Your task to perform on an android device: turn off priority inbox in the gmail app Image 0: 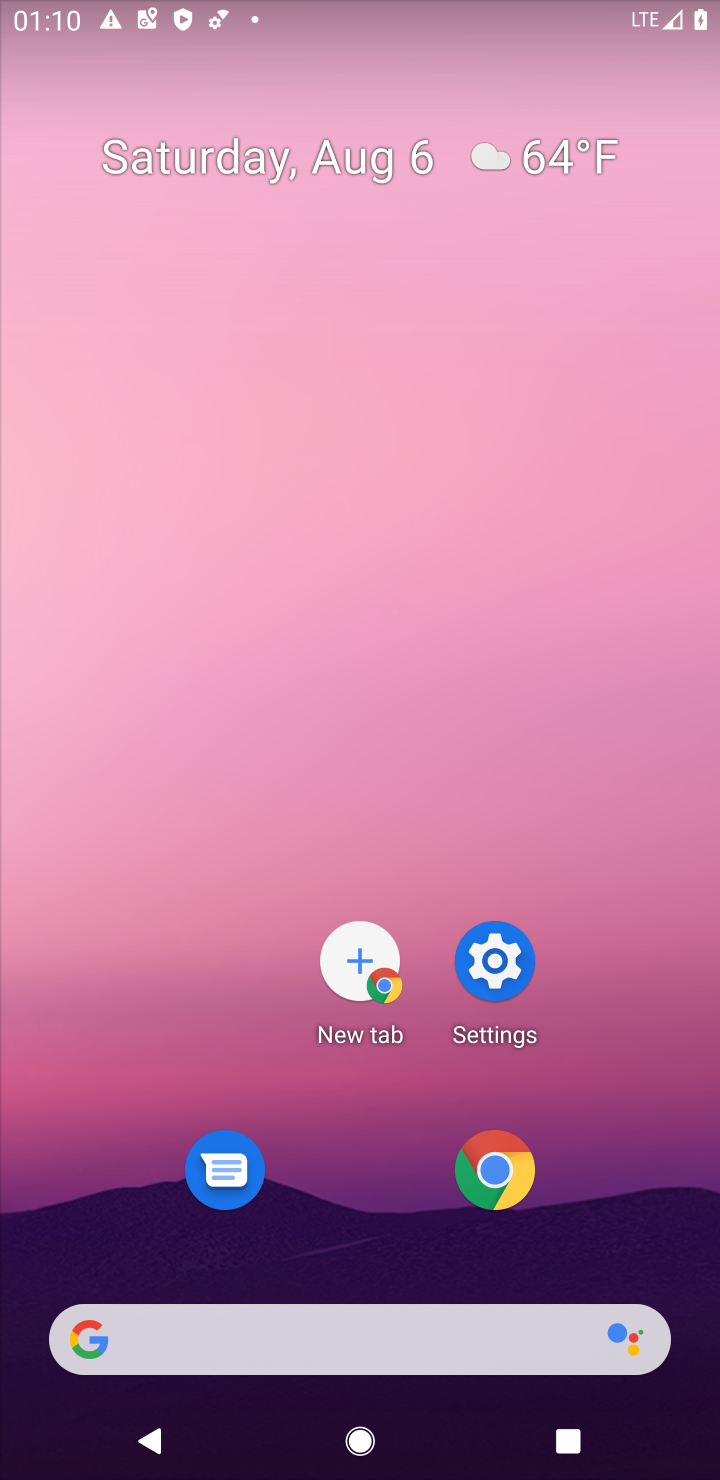
Step 0: drag from (320, 1155) to (455, 338)
Your task to perform on an android device: turn off priority inbox in the gmail app Image 1: 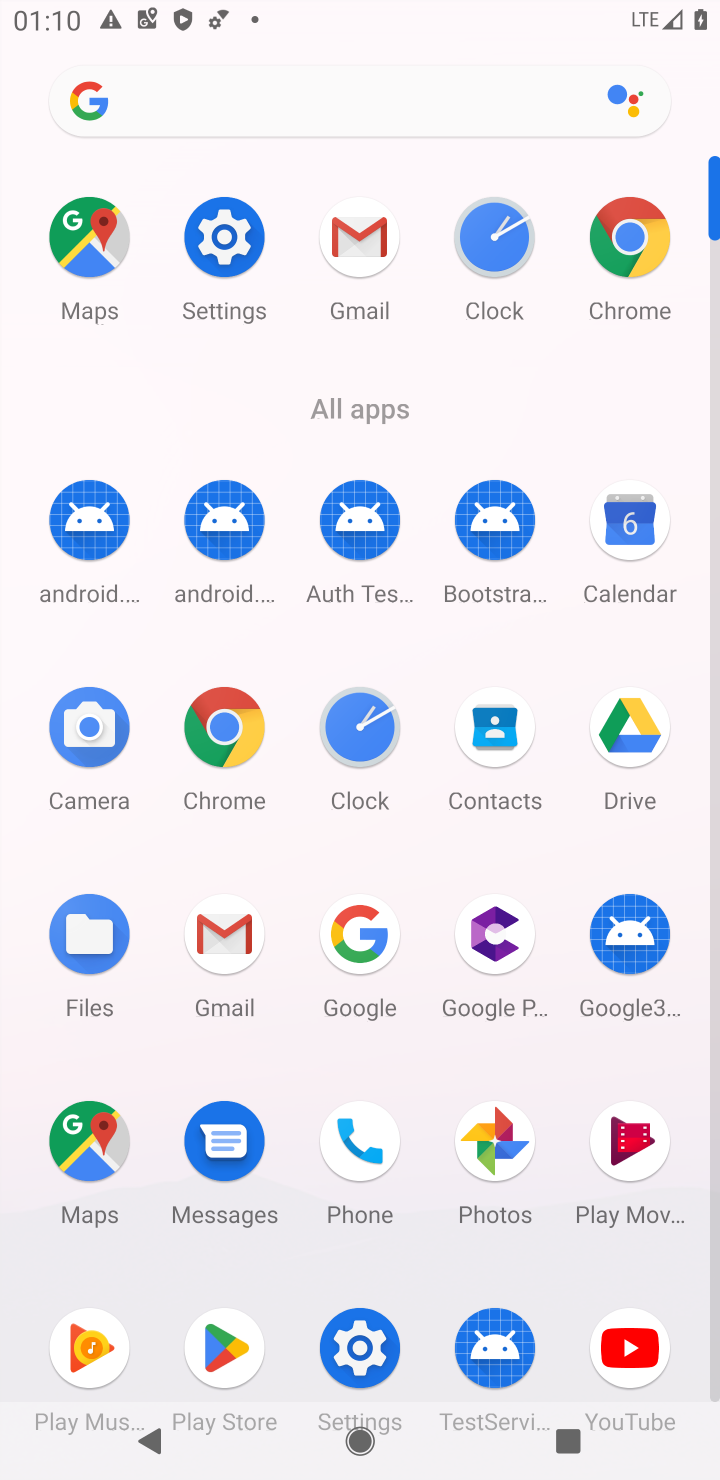
Step 1: click (325, 236)
Your task to perform on an android device: turn off priority inbox in the gmail app Image 2: 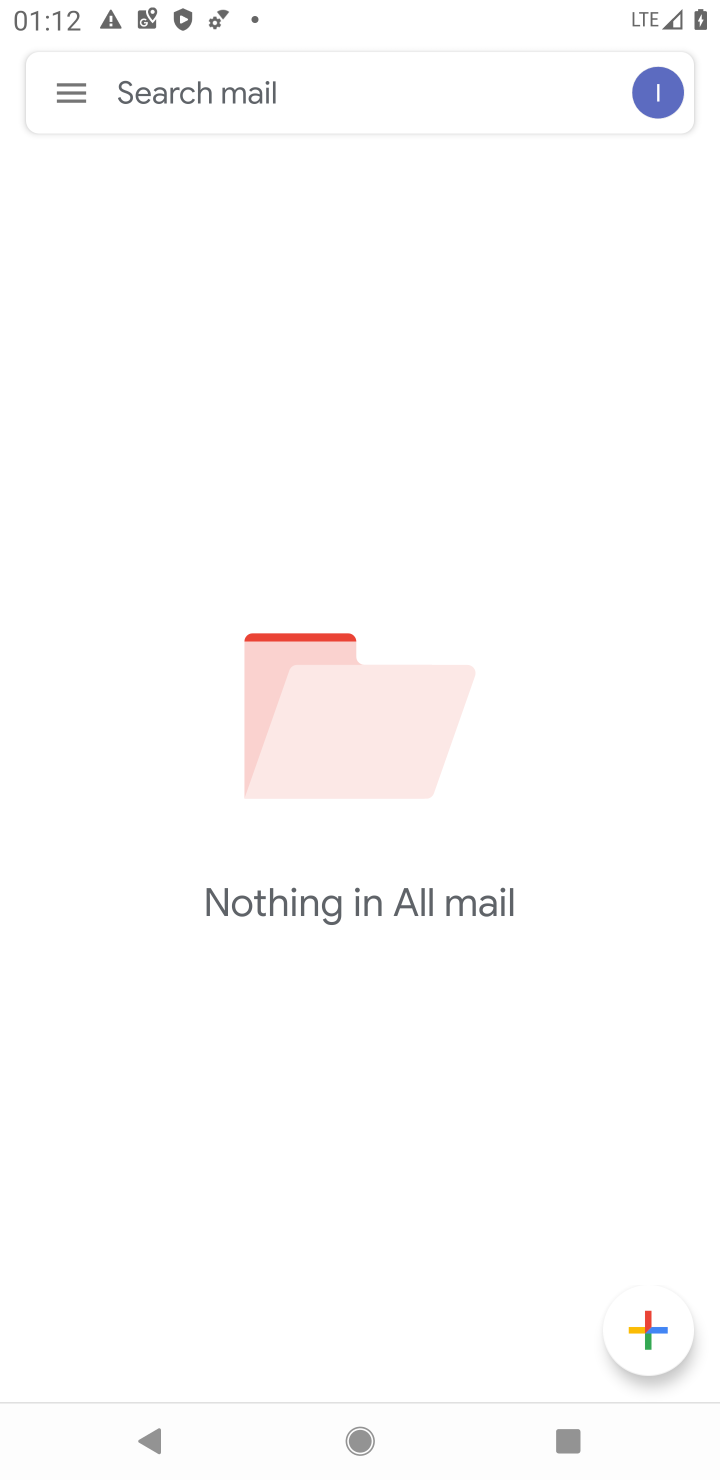
Step 2: task complete